Your task to perform on an android device: Open Google Chrome and open the bookmarks view Image 0: 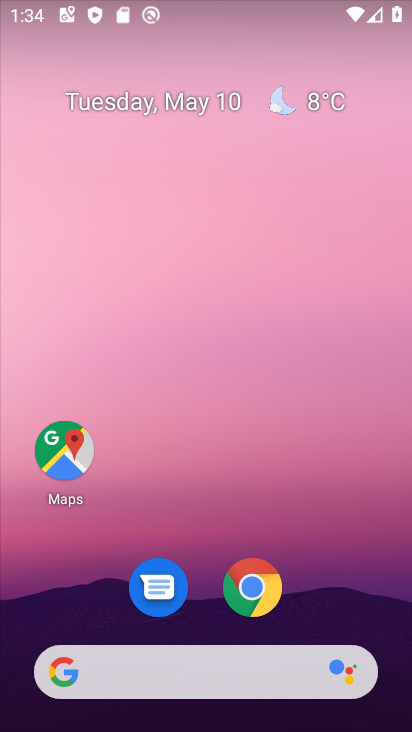
Step 0: click (252, 576)
Your task to perform on an android device: Open Google Chrome and open the bookmarks view Image 1: 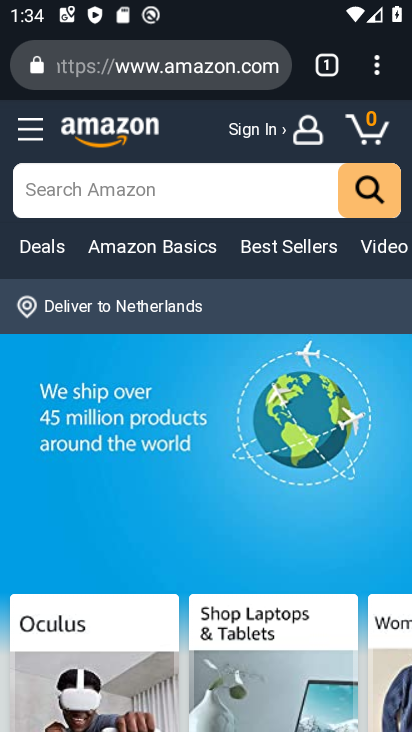
Step 1: click (388, 74)
Your task to perform on an android device: Open Google Chrome and open the bookmarks view Image 2: 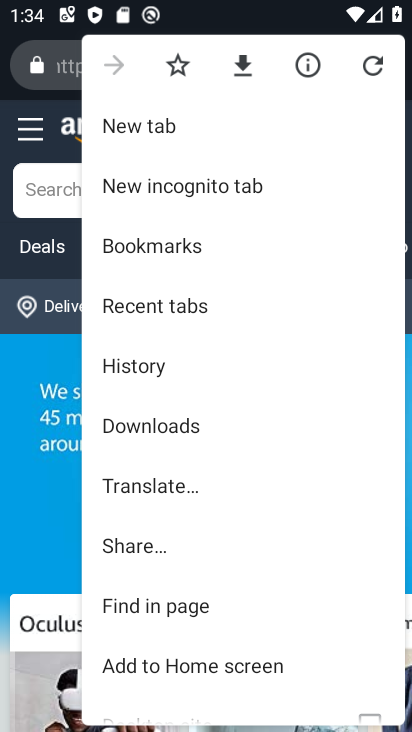
Step 2: click (176, 251)
Your task to perform on an android device: Open Google Chrome and open the bookmarks view Image 3: 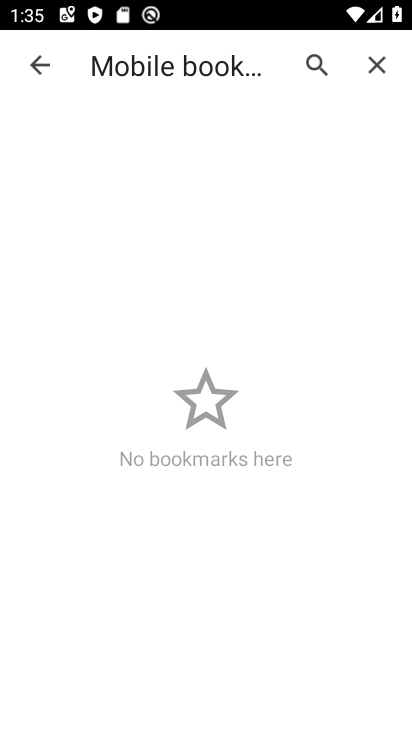
Step 3: task complete